Your task to perform on an android device: change timer sound Image 0: 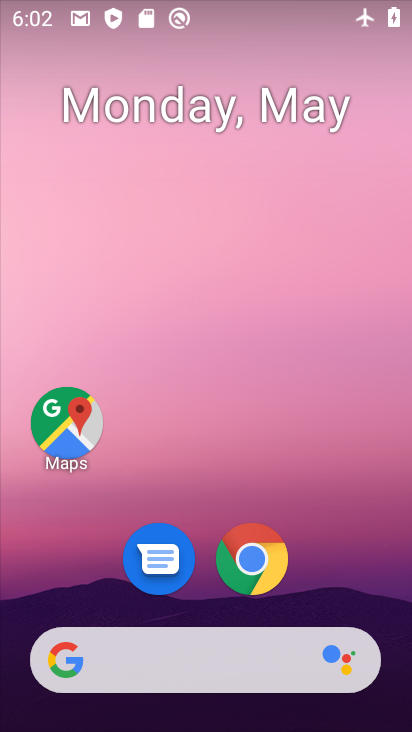
Step 0: drag from (311, 555) to (222, 93)
Your task to perform on an android device: change timer sound Image 1: 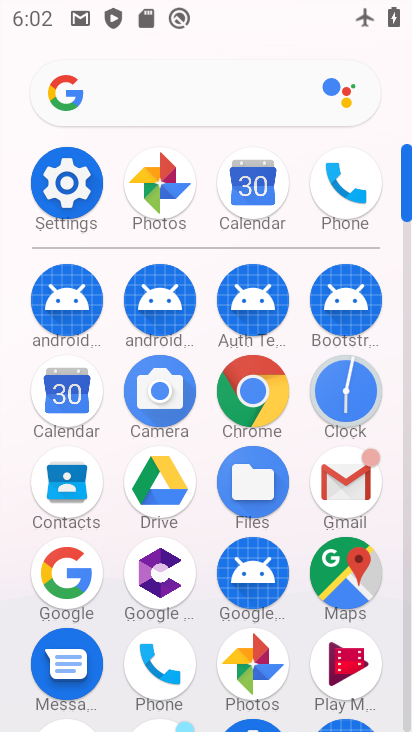
Step 1: click (346, 383)
Your task to perform on an android device: change timer sound Image 2: 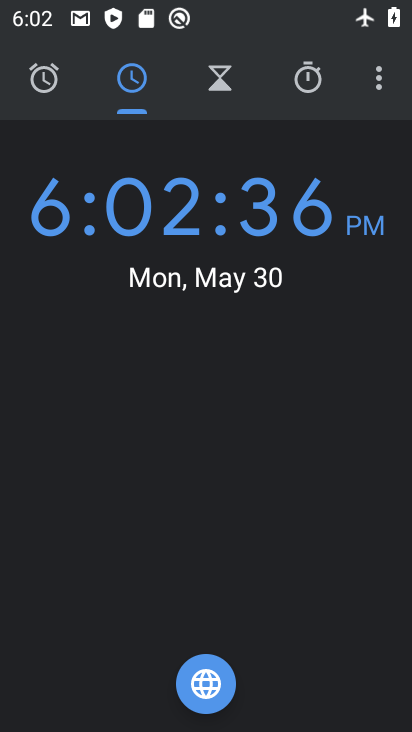
Step 2: click (380, 78)
Your task to perform on an android device: change timer sound Image 3: 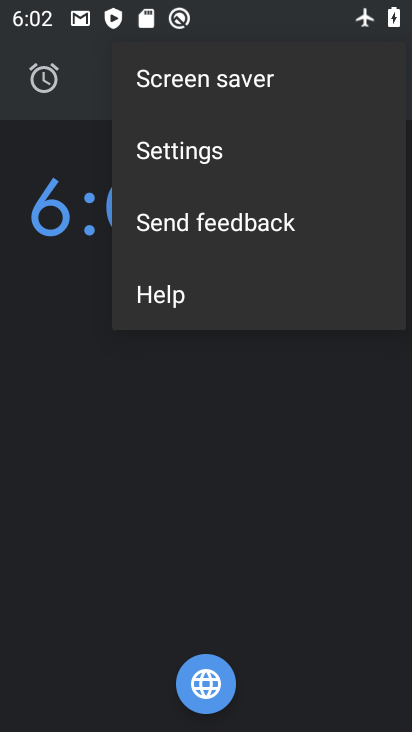
Step 3: click (194, 149)
Your task to perform on an android device: change timer sound Image 4: 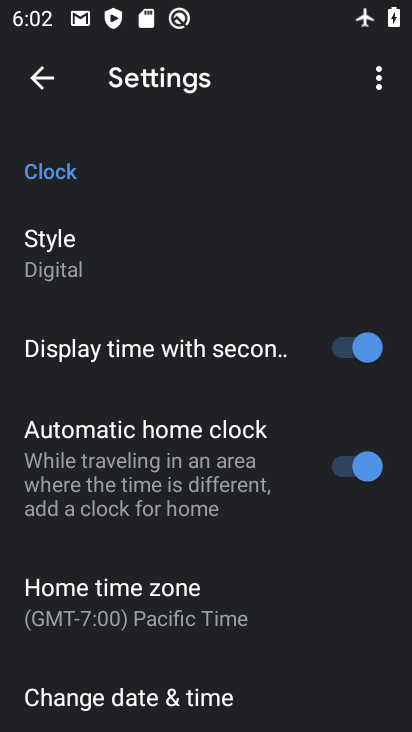
Step 4: drag from (271, 584) to (202, 133)
Your task to perform on an android device: change timer sound Image 5: 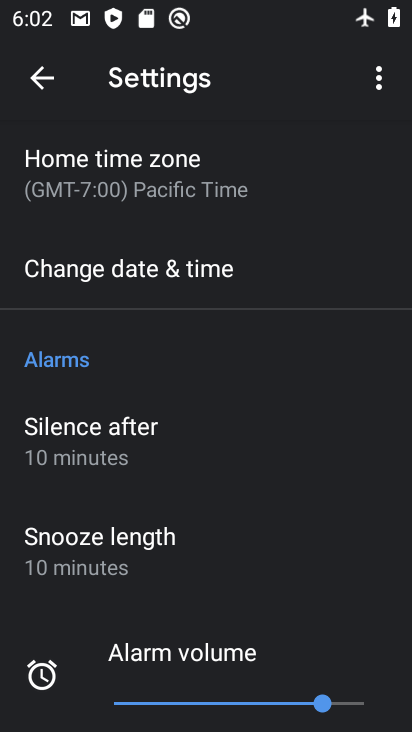
Step 5: drag from (164, 497) to (143, 182)
Your task to perform on an android device: change timer sound Image 6: 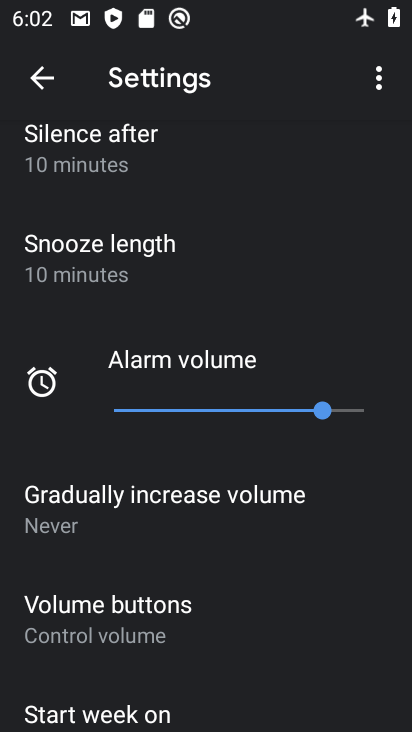
Step 6: drag from (214, 578) to (241, 165)
Your task to perform on an android device: change timer sound Image 7: 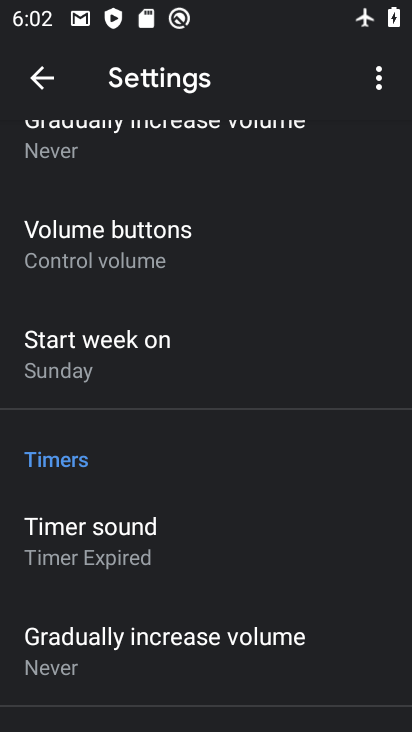
Step 7: click (97, 533)
Your task to perform on an android device: change timer sound Image 8: 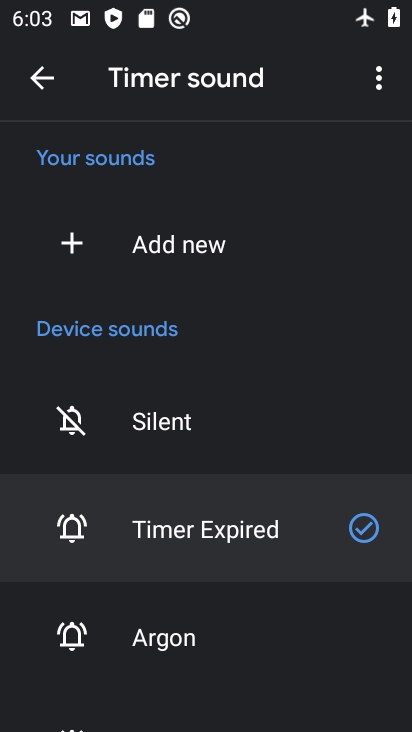
Step 8: task complete